Your task to perform on an android device: Go to network settings Image 0: 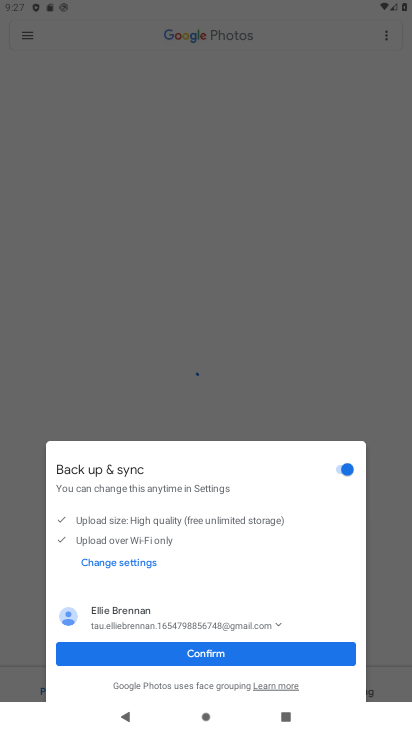
Step 0: press home button
Your task to perform on an android device: Go to network settings Image 1: 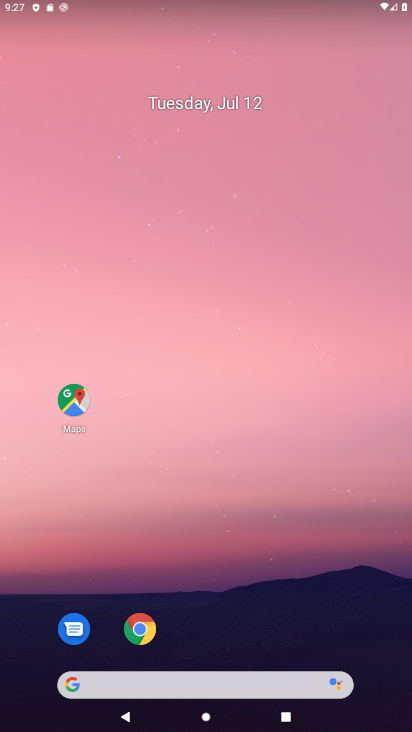
Step 1: drag from (274, 679) to (307, 84)
Your task to perform on an android device: Go to network settings Image 2: 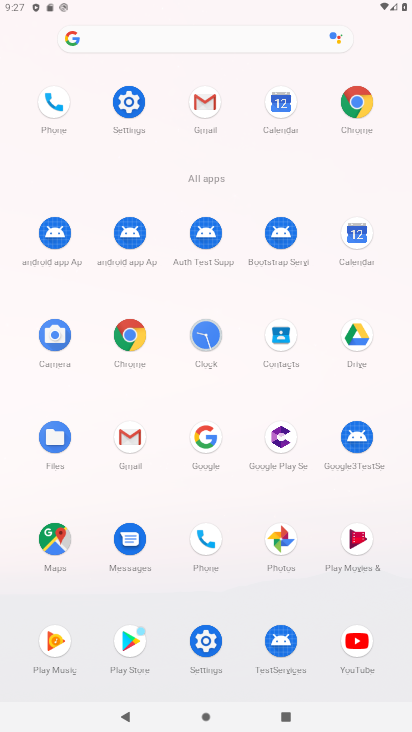
Step 2: click (127, 104)
Your task to perform on an android device: Go to network settings Image 3: 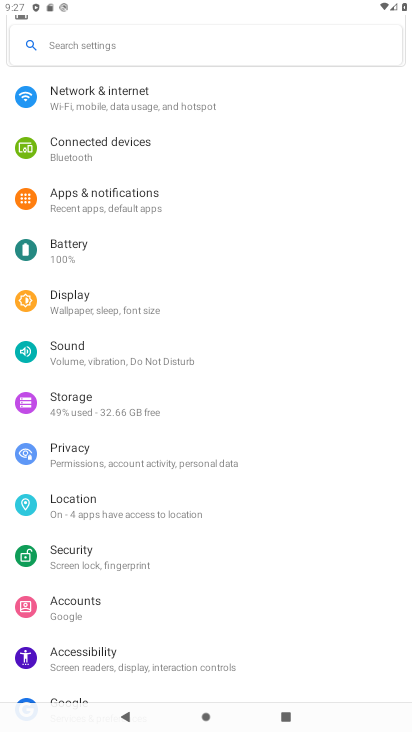
Step 3: click (124, 97)
Your task to perform on an android device: Go to network settings Image 4: 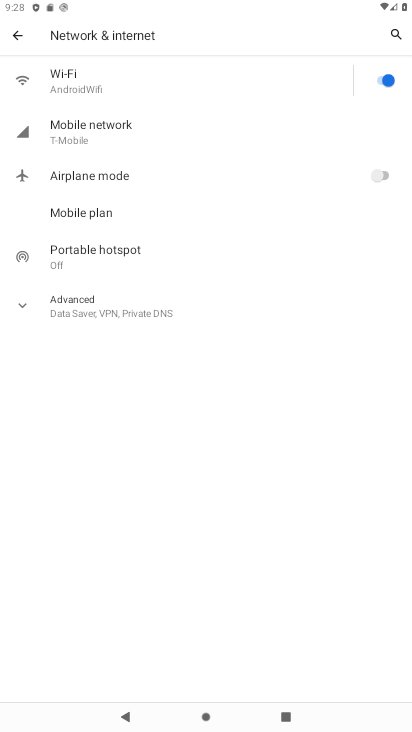
Step 4: task complete